Your task to perform on an android device: turn smart compose on in the gmail app Image 0: 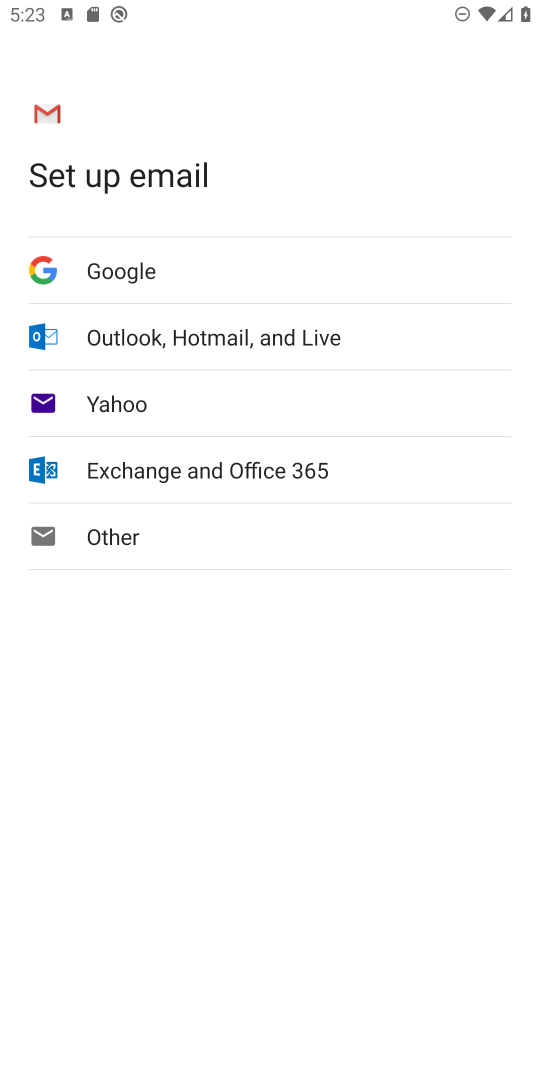
Step 0: press home button
Your task to perform on an android device: turn smart compose on in the gmail app Image 1: 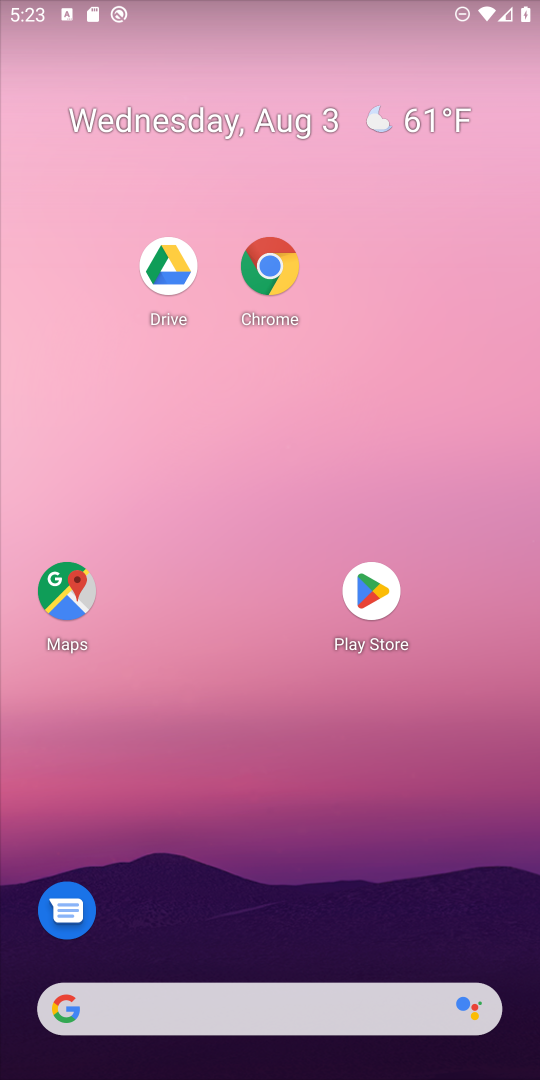
Step 1: drag from (289, 973) to (525, 76)
Your task to perform on an android device: turn smart compose on in the gmail app Image 2: 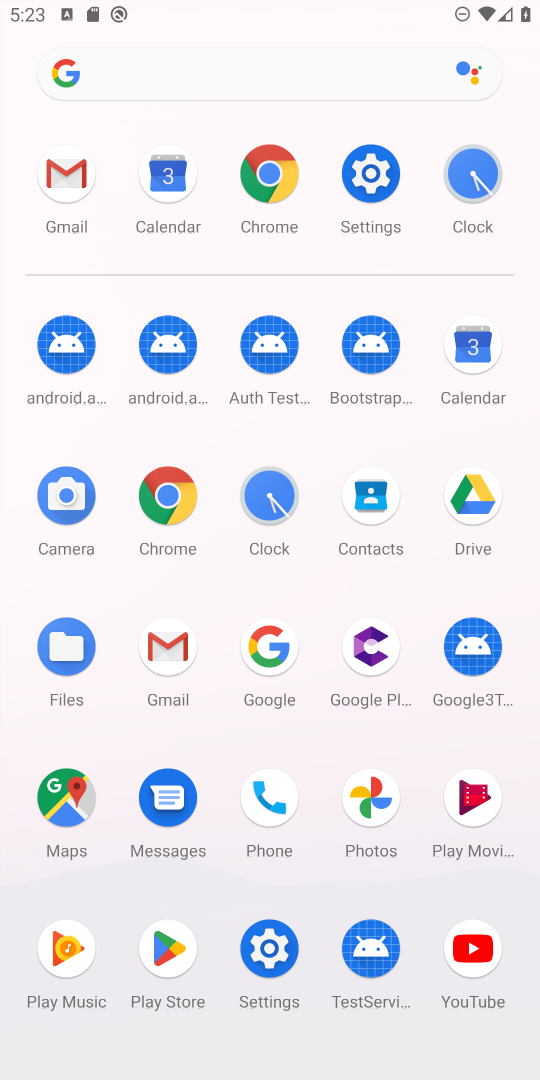
Step 2: click (168, 649)
Your task to perform on an android device: turn smart compose on in the gmail app Image 3: 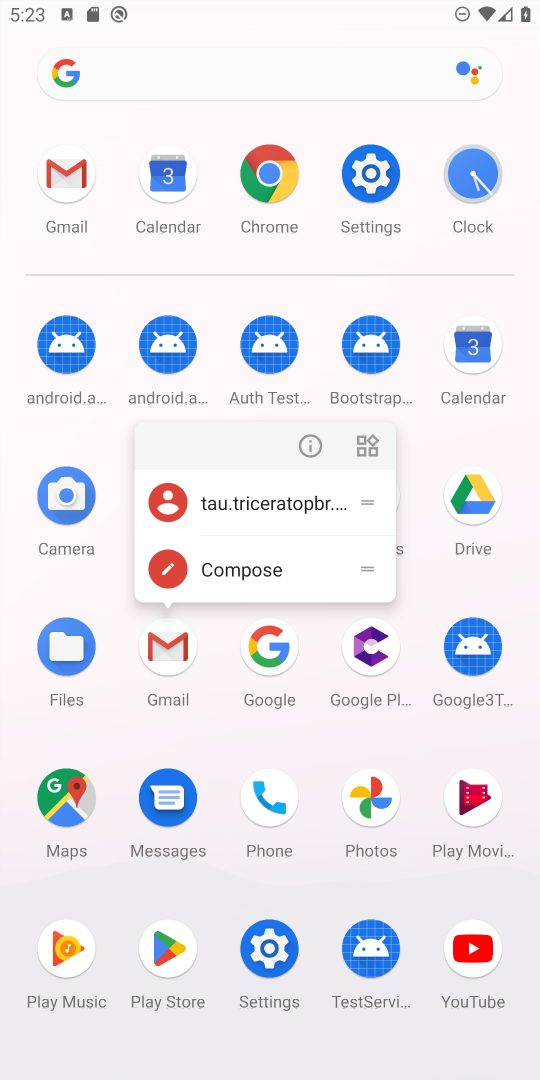
Step 3: click (168, 652)
Your task to perform on an android device: turn smart compose on in the gmail app Image 4: 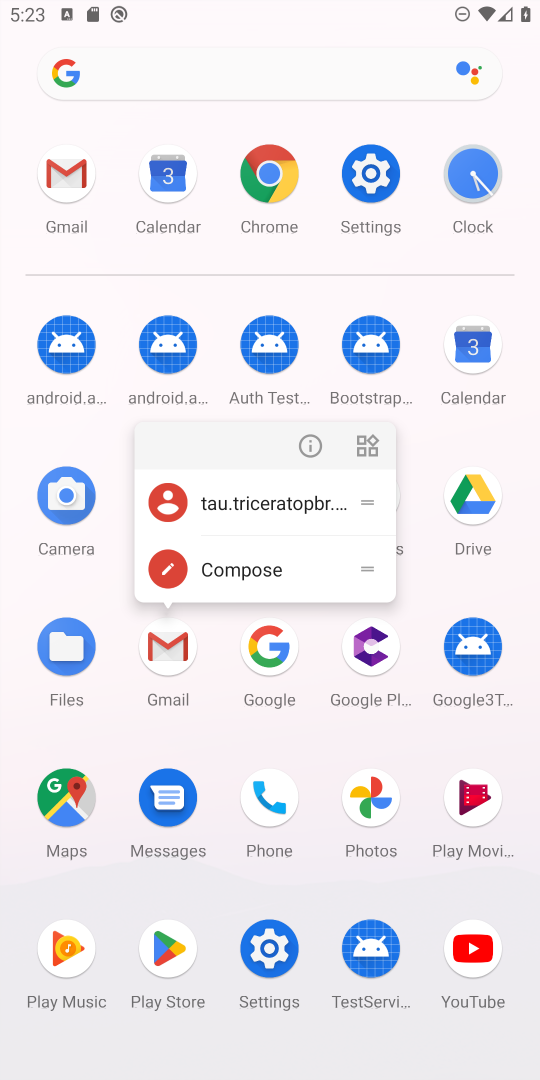
Step 4: click (169, 653)
Your task to perform on an android device: turn smart compose on in the gmail app Image 5: 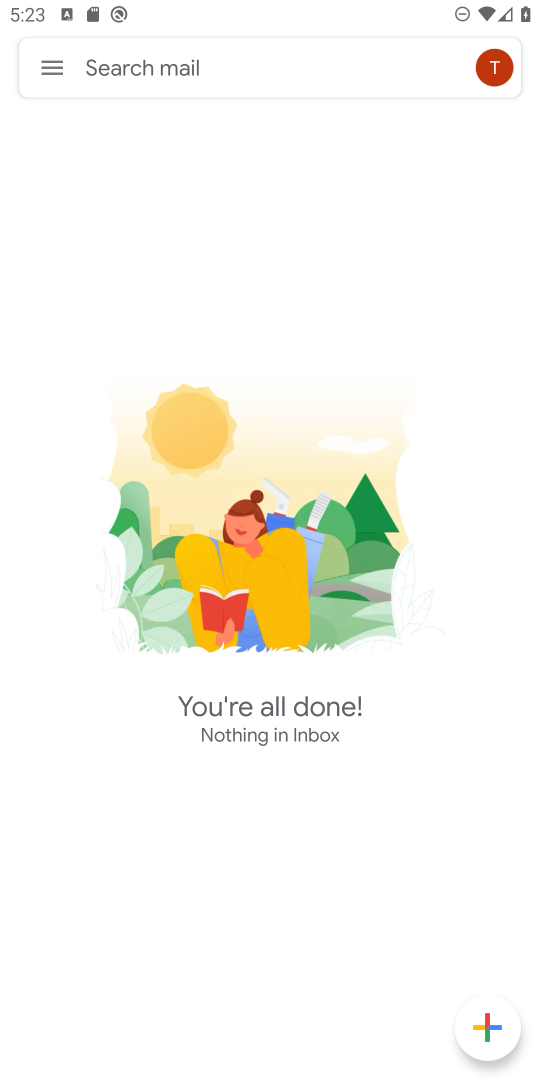
Step 5: click (46, 60)
Your task to perform on an android device: turn smart compose on in the gmail app Image 6: 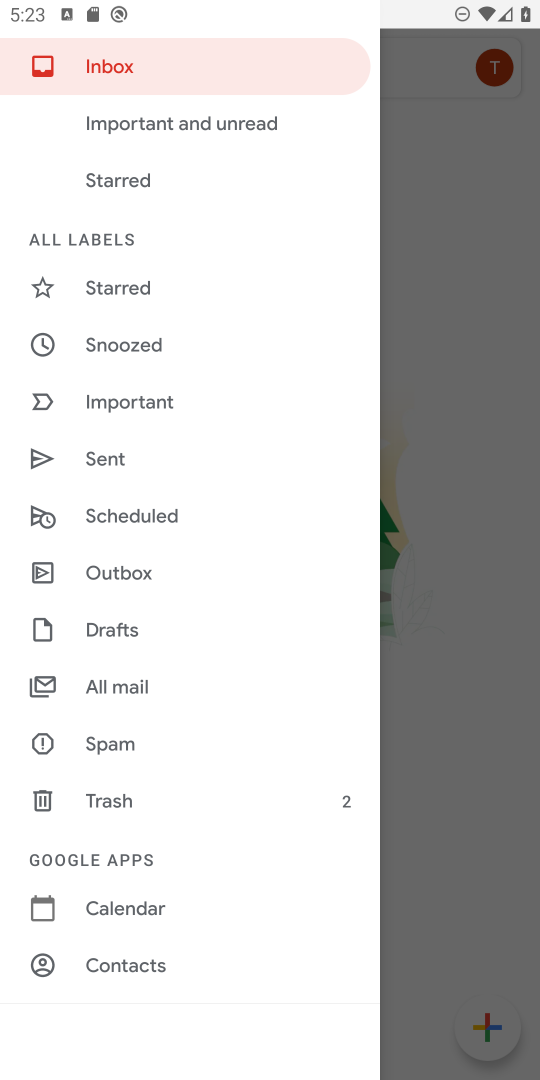
Step 6: drag from (177, 997) to (243, 162)
Your task to perform on an android device: turn smart compose on in the gmail app Image 7: 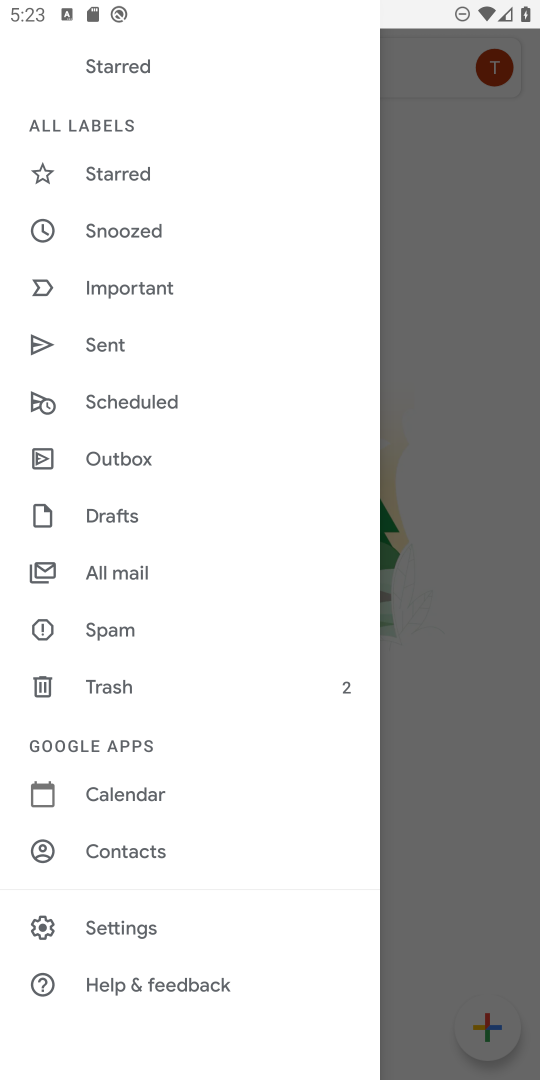
Step 7: click (138, 913)
Your task to perform on an android device: turn smart compose on in the gmail app Image 8: 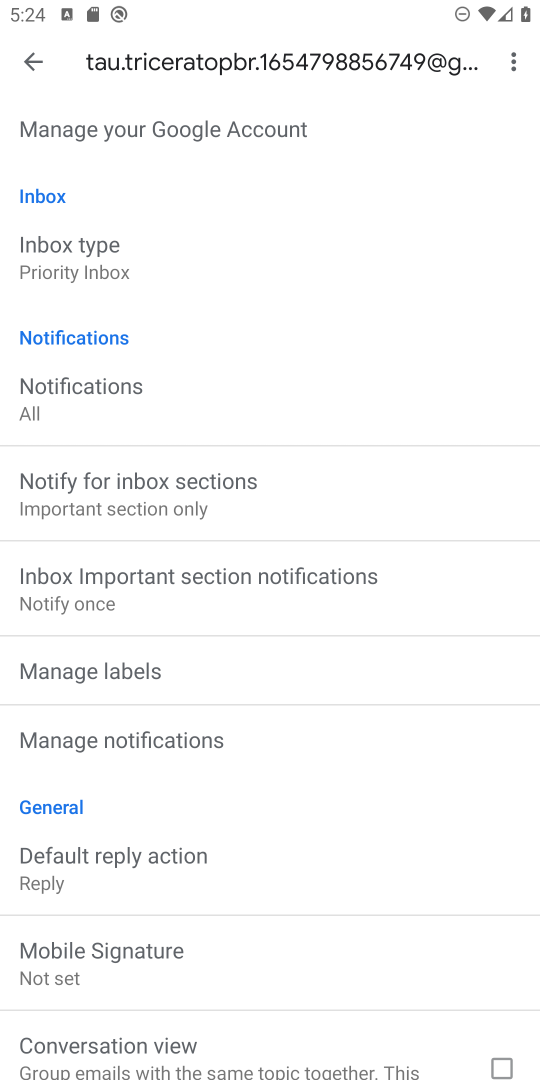
Step 8: task complete